Your task to perform on an android device: toggle show notifications on the lock screen Image 0: 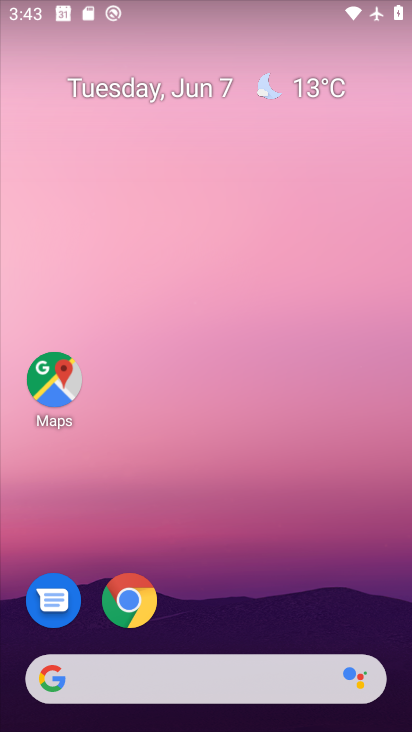
Step 0: drag from (288, 568) to (178, 148)
Your task to perform on an android device: toggle show notifications on the lock screen Image 1: 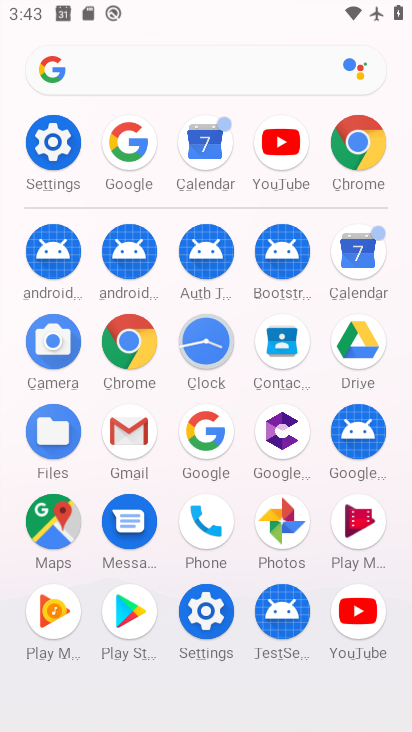
Step 1: click (46, 150)
Your task to perform on an android device: toggle show notifications on the lock screen Image 2: 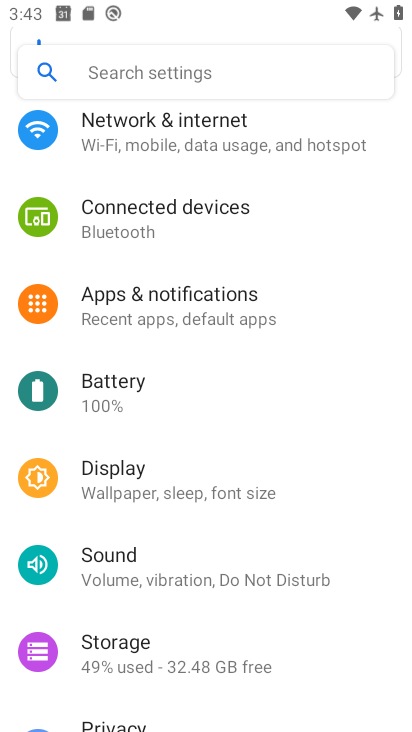
Step 2: click (195, 290)
Your task to perform on an android device: toggle show notifications on the lock screen Image 3: 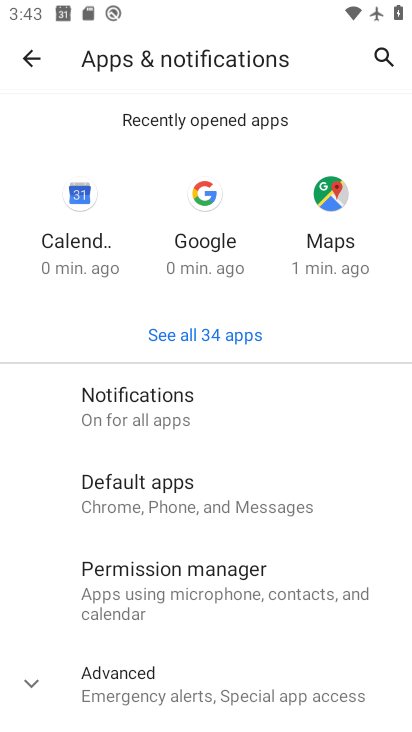
Step 3: click (210, 394)
Your task to perform on an android device: toggle show notifications on the lock screen Image 4: 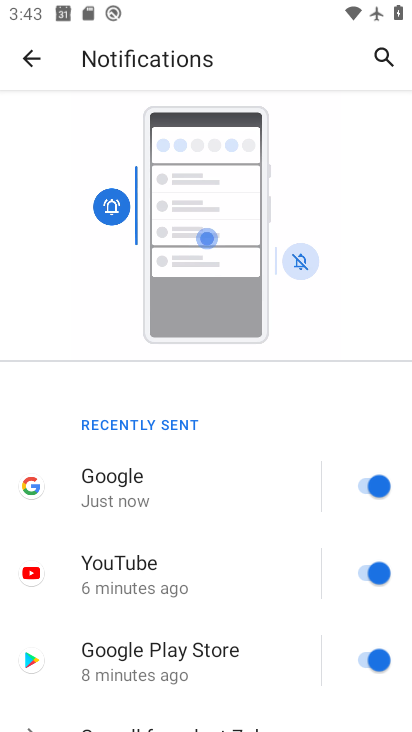
Step 4: drag from (222, 481) to (250, 96)
Your task to perform on an android device: toggle show notifications on the lock screen Image 5: 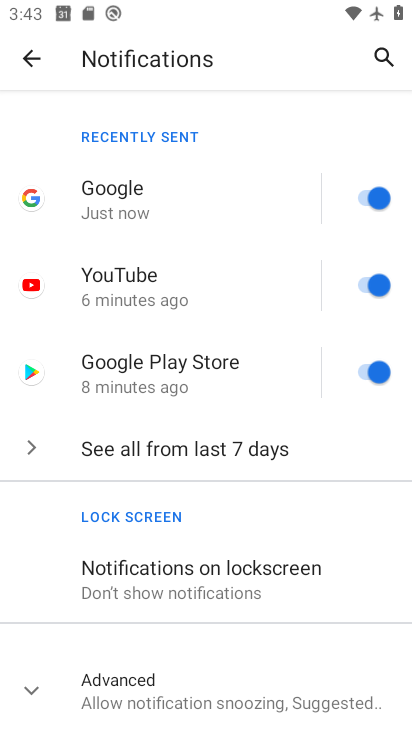
Step 5: click (197, 568)
Your task to perform on an android device: toggle show notifications on the lock screen Image 6: 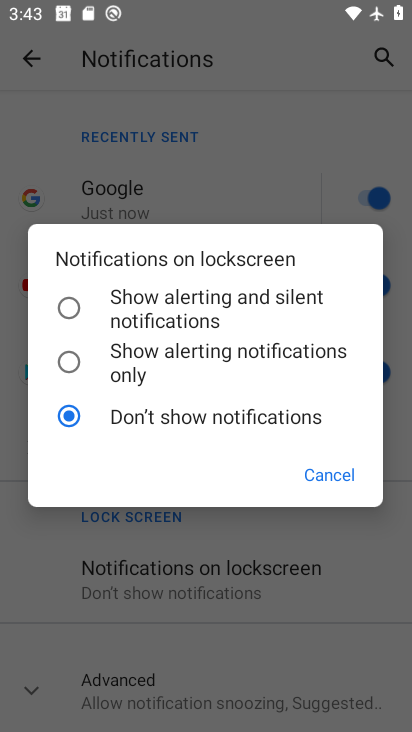
Step 6: click (222, 374)
Your task to perform on an android device: toggle show notifications on the lock screen Image 7: 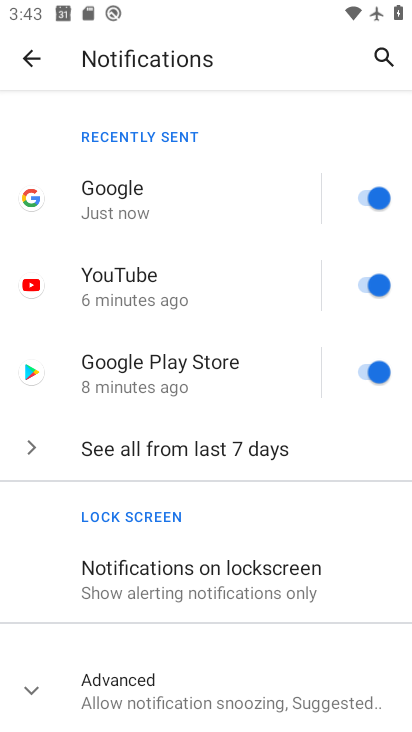
Step 7: task complete